Your task to perform on an android device: check out phone information Image 0: 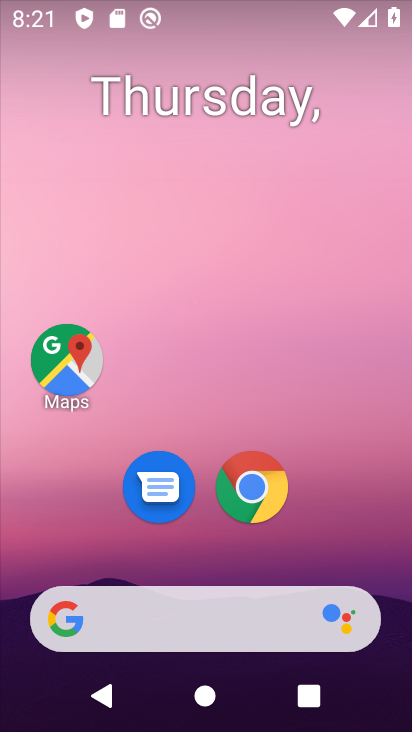
Step 0: drag from (300, 658) to (342, 40)
Your task to perform on an android device: check out phone information Image 1: 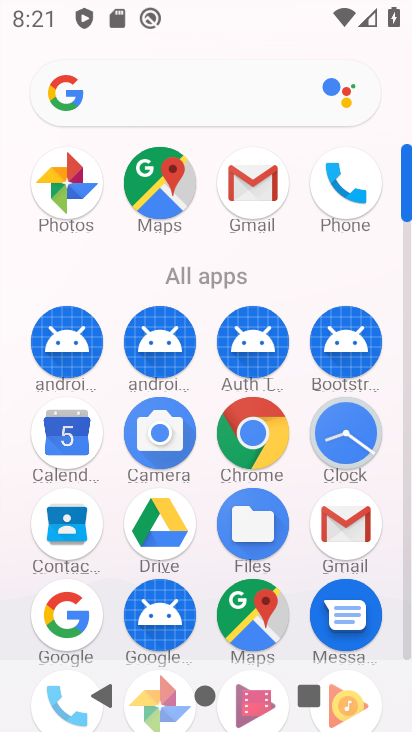
Step 1: drag from (111, 484) to (132, 307)
Your task to perform on an android device: check out phone information Image 2: 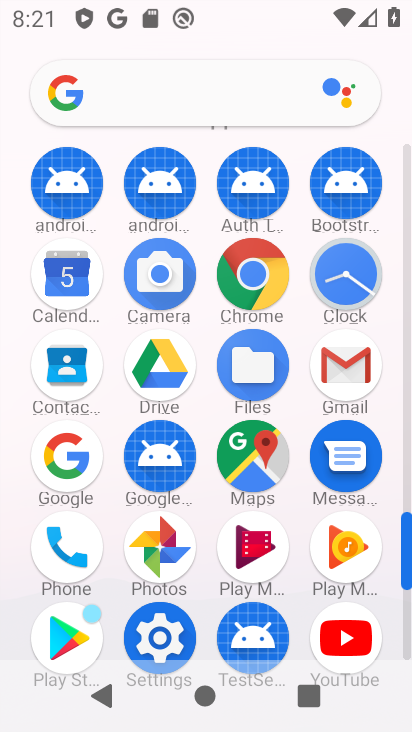
Step 2: click (178, 629)
Your task to perform on an android device: check out phone information Image 3: 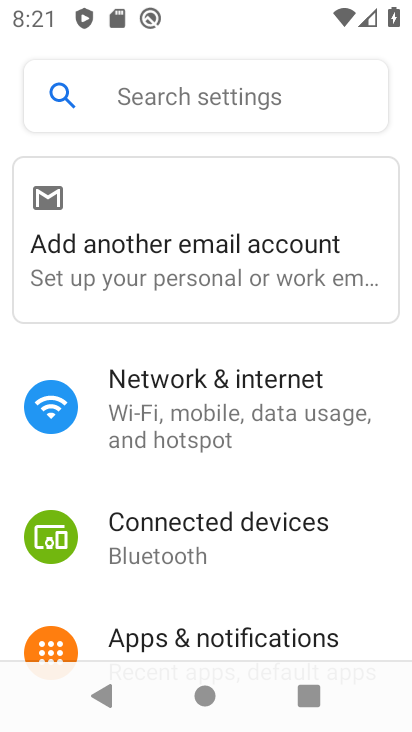
Step 3: drag from (198, 367) to (184, 556)
Your task to perform on an android device: check out phone information Image 4: 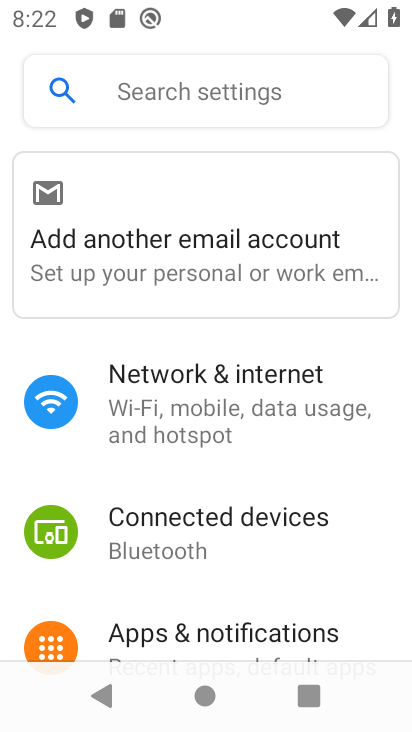
Step 4: click (205, 99)
Your task to perform on an android device: check out phone information Image 5: 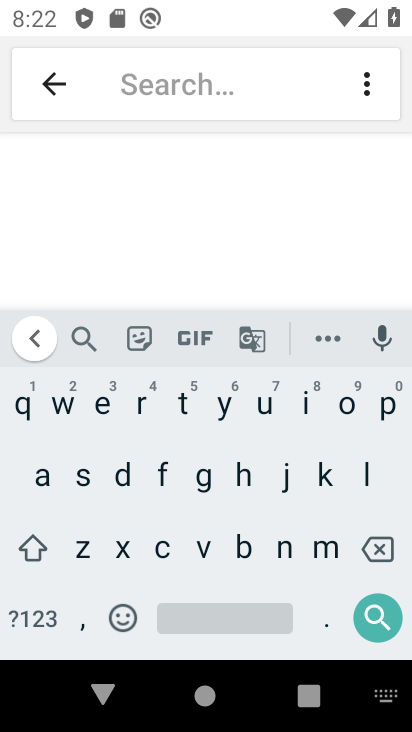
Step 5: click (42, 484)
Your task to perform on an android device: check out phone information Image 6: 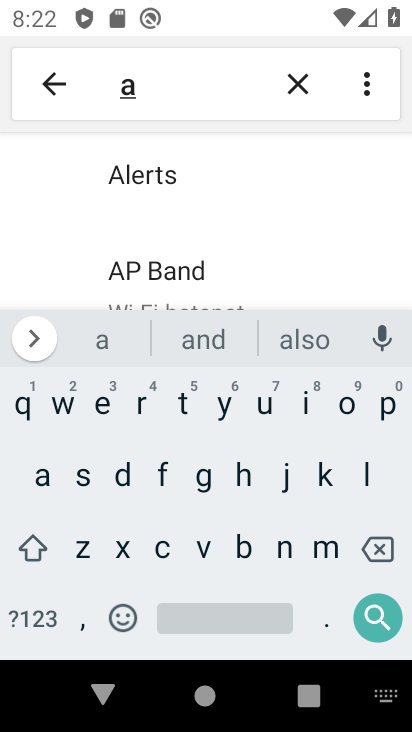
Step 6: click (238, 545)
Your task to perform on an android device: check out phone information Image 7: 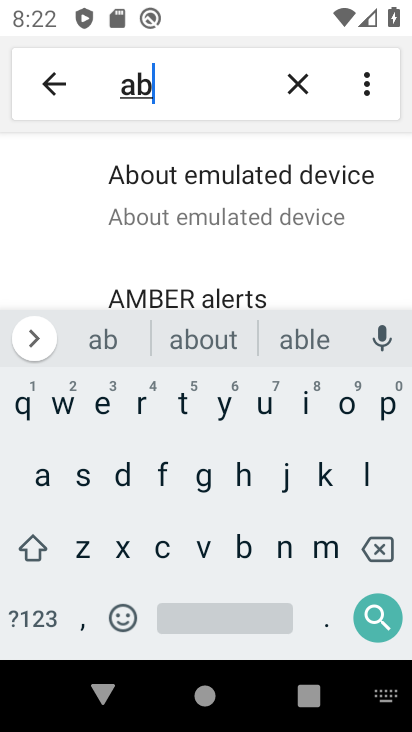
Step 7: click (171, 191)
Your task to perform on an android device: check out phone information Image 8: 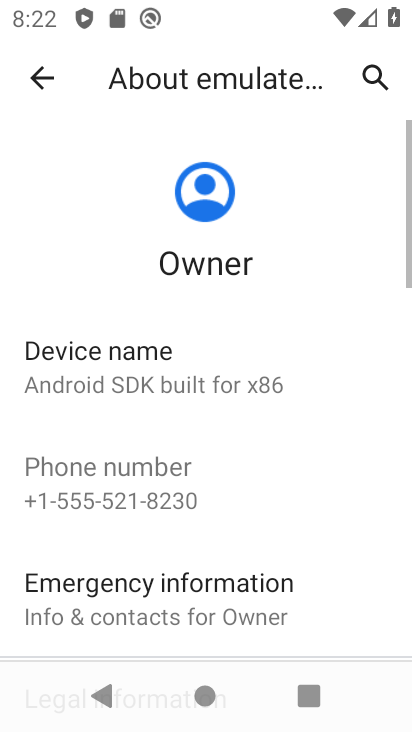
Step 8: task complete